Your task to perform on an android device: Open CNN.com Image 0: 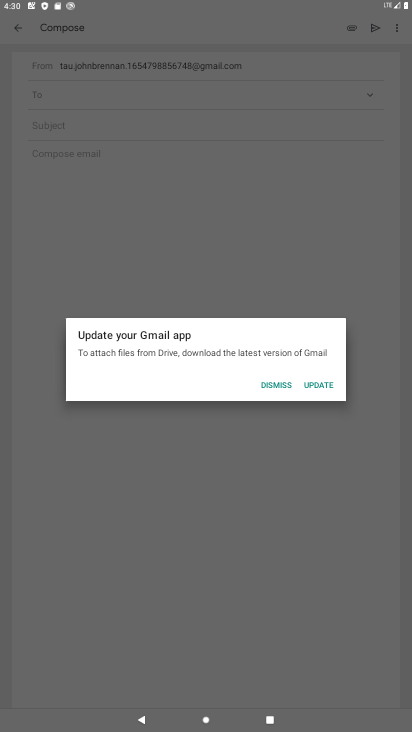
Step 0: click (18, 42)
Your task to perform on an android device: Open CNN.com Image 1: 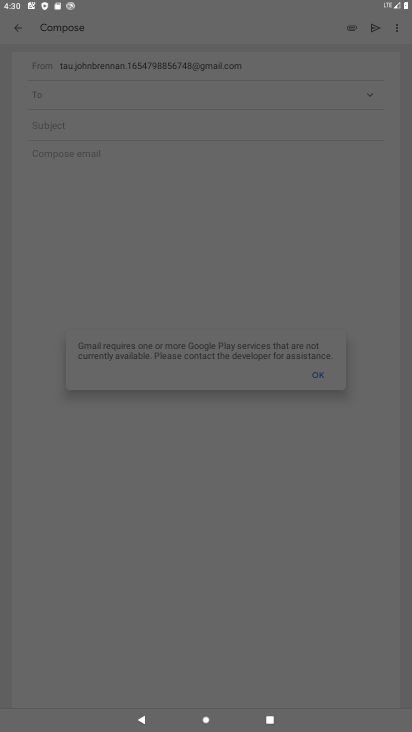
Step 1: click (19, 30)
Your task to perform on an android device: Open CNN.com Image 2: 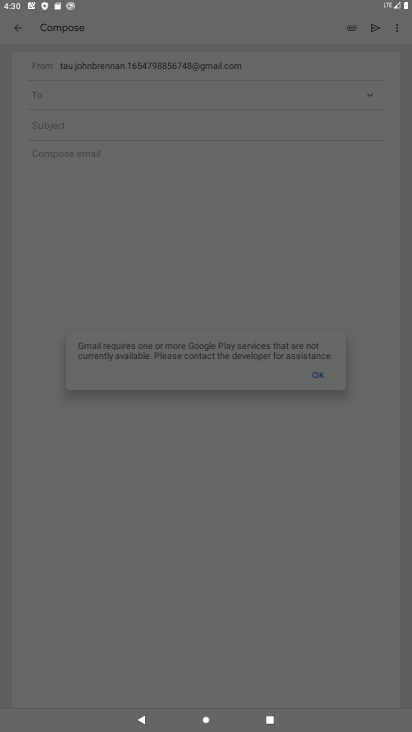
Step 2: click (19, 30)
Your task to perform on an android device: Open CNN.com Image 3: 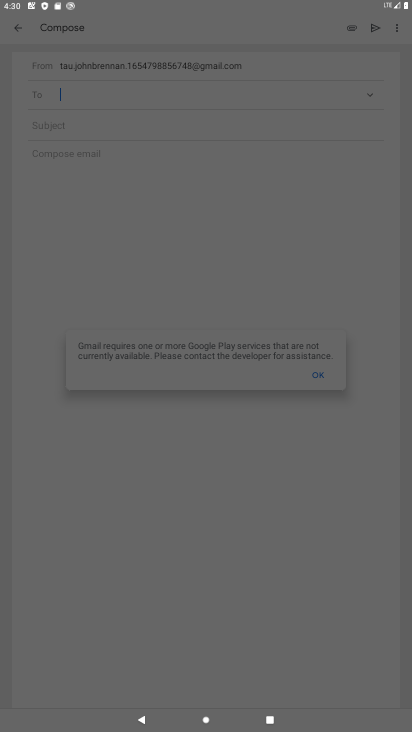
Step 3: press back button
Your task to perform on an android device: Open CNN.com Image 4: 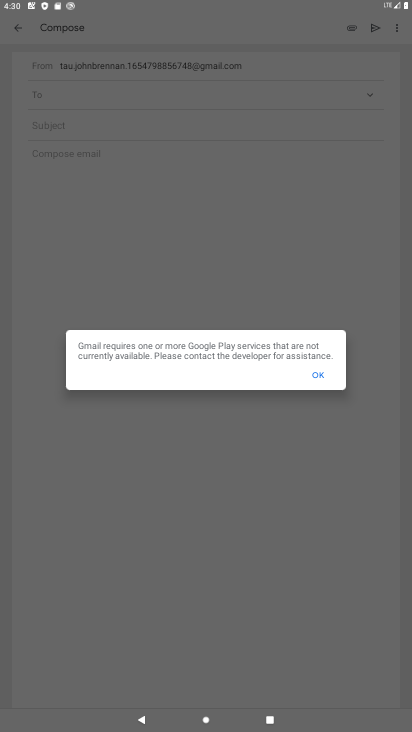
Step 4: click (13, 31)
Your task to perform on an android device: Open CNN.com Image 5: 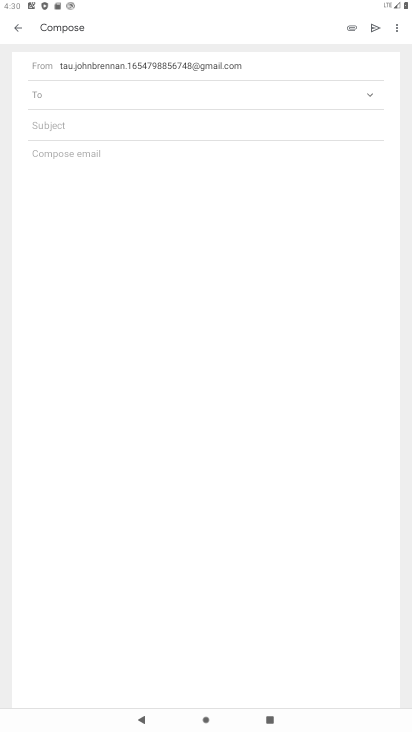
Step 5: click (320, 371)
Your task to perform on an android device: Open CNN.com Image 6: 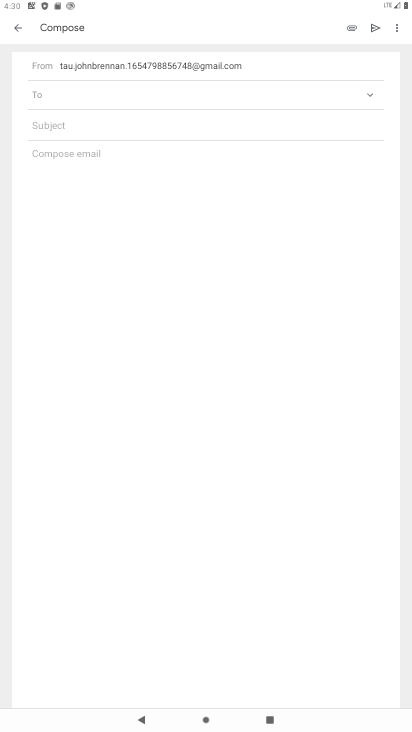
Step 6: click (320, 371)
Your task to perform on an android device: Open CNN.com Image 7: 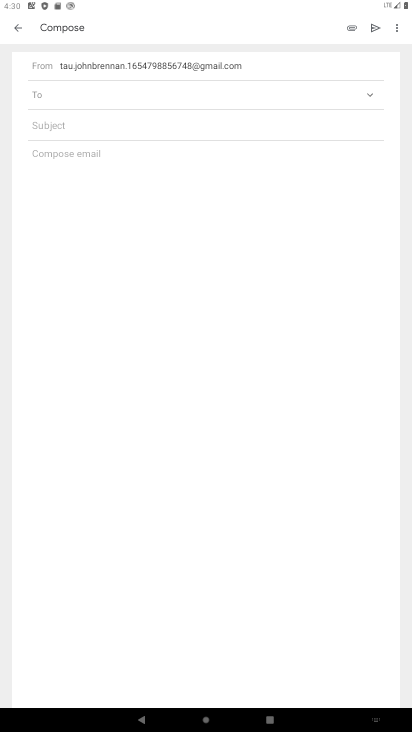
Step 7: click (18, 21)
Your task to perform on an android device: Open CNN.com Image 8: 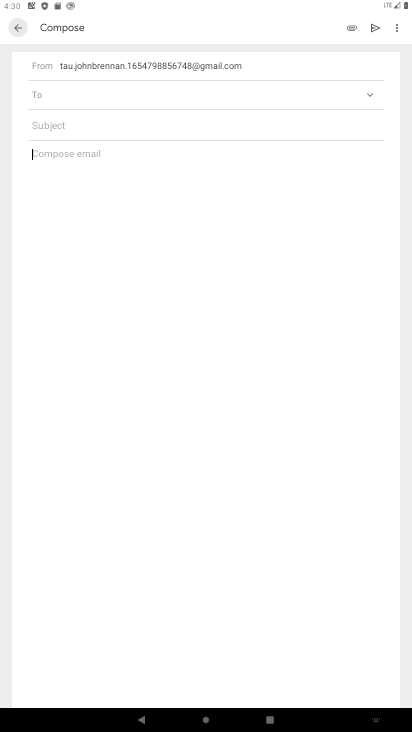
Step 8: click (19, 20)
Your task to perform on an android device: Open CNN.com Image 9: 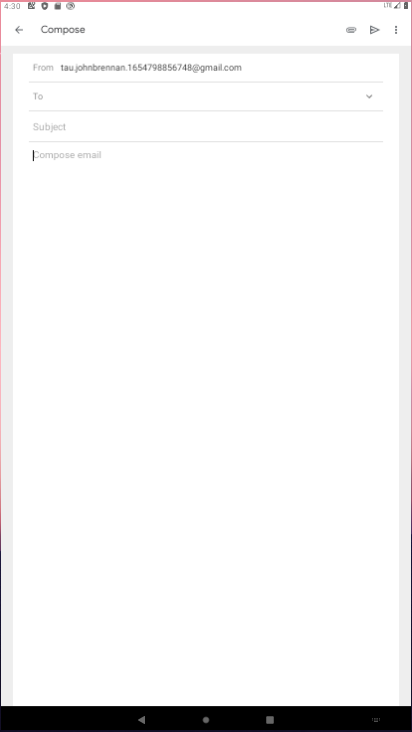
Step 9: click (18, 21)
Your task to perform on an android device: Open CNN.com Image 10: 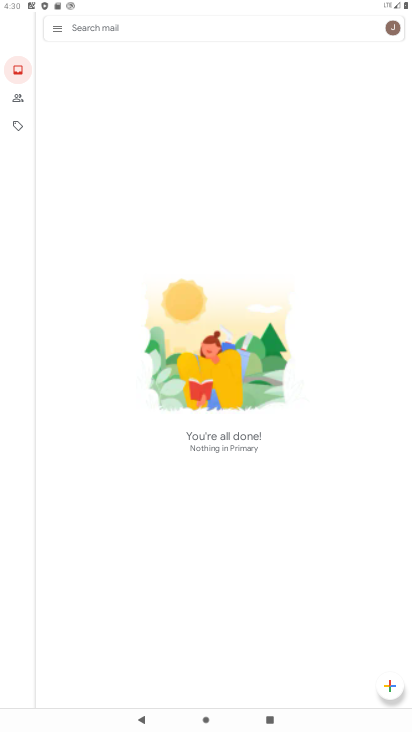
Step 10: click (54, 34)
Your task to perform on an android device: Open CNN.com Image 11: 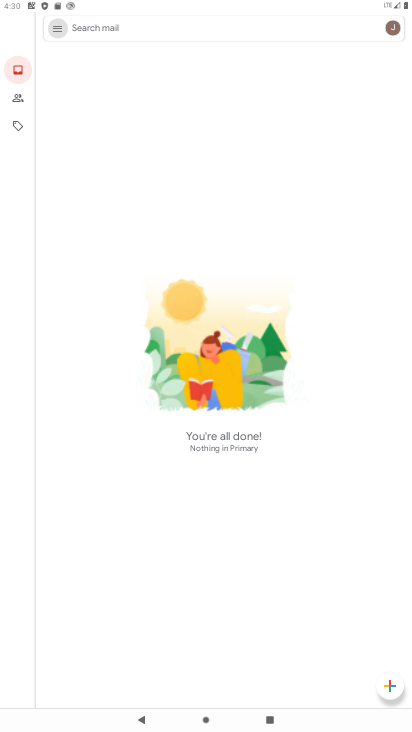
Step 11: click (54, 33)
Your task to perform on an android device: Open CNN.com Image 12: 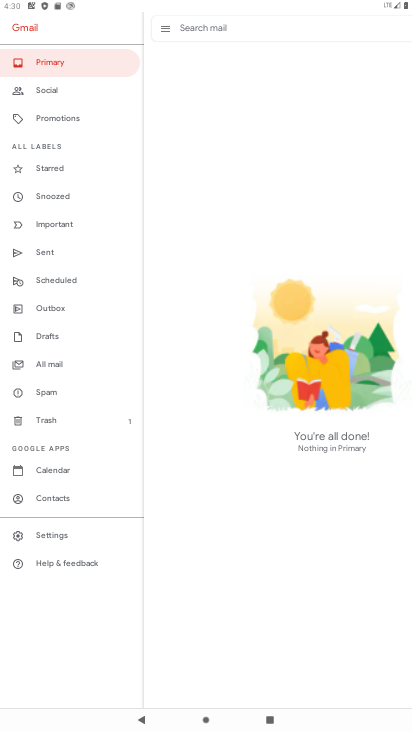
Step 12: click (55, 32)
Your task to perform on an android device: Open CNN.com Image 13: 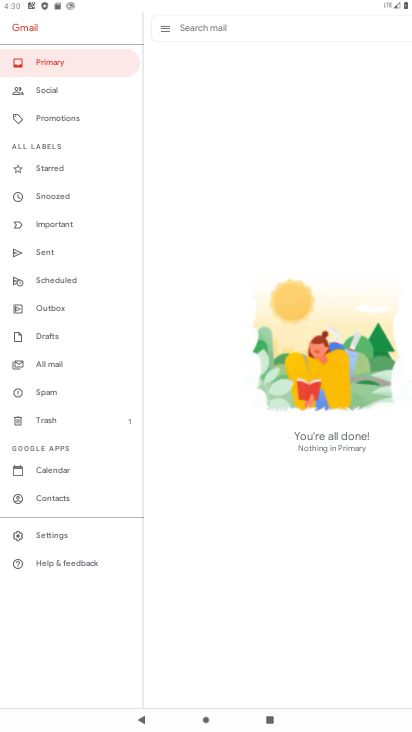
Step 13: press back button
Your task to perform on an android device: Open CNN.com Image 14: 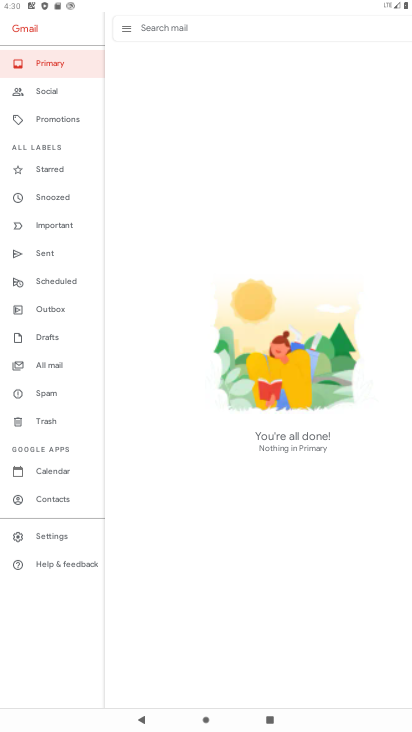
Step 14: press back button
Your task to perform on an android device: Open CNN.com Image 15: 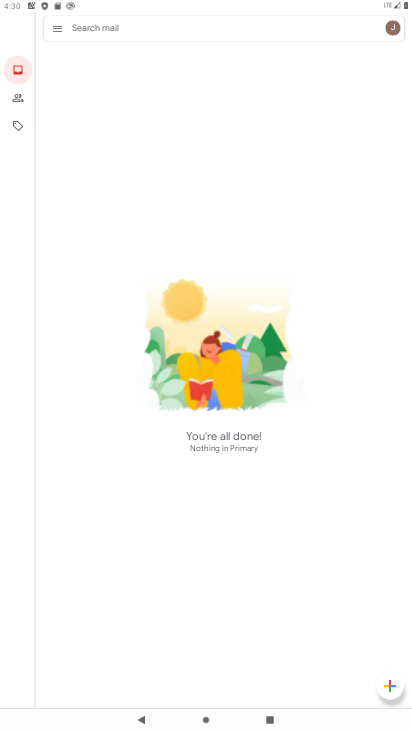
Step 15: press back button
Your task to perform on an android device: Open CNN.com Image 16: 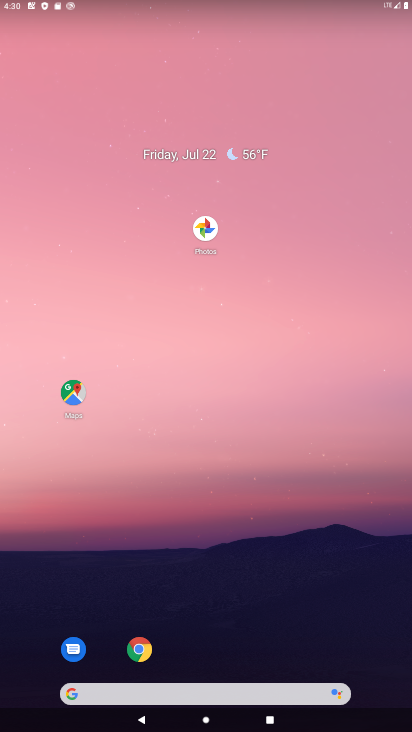
Step 16: drag from (150, 239) to (122, 12)
Your task to perform on an android device: Open CNN.com Image 17: 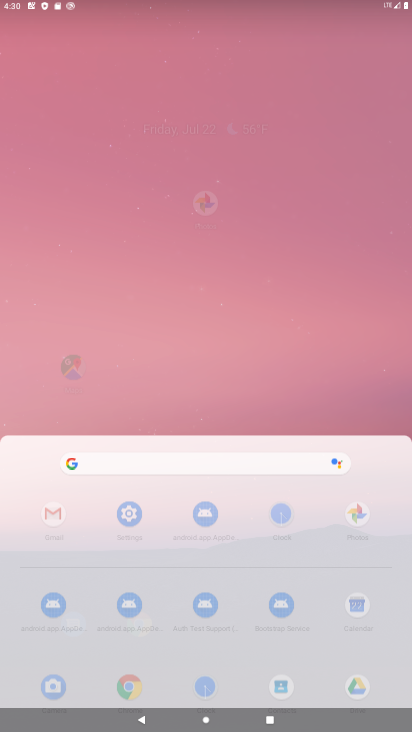
Step 17: click (164, 16)
Your task to perform on an android device: Open CNN.com Image 18: 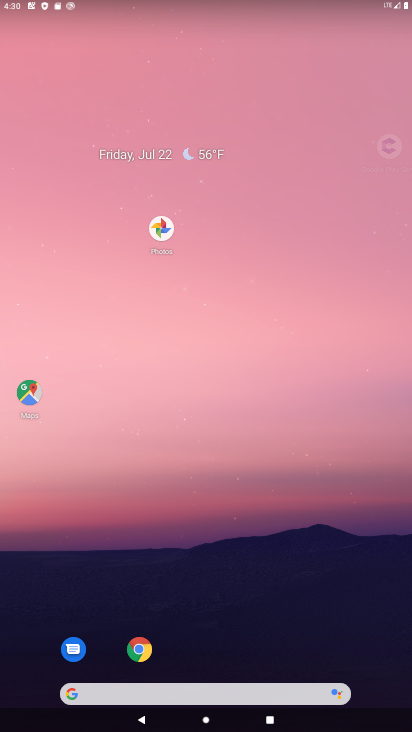
Step 18: drag from (224, 429) to (216, 5)
Your task to perform on an android device: Open CNN.com Image 19: 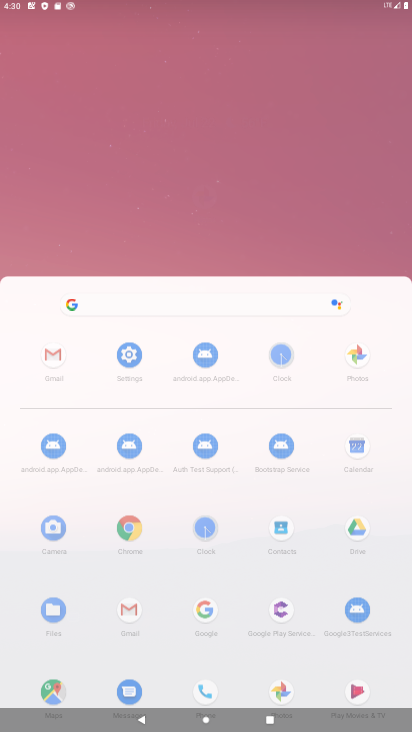
Step 19: drag from (216, 347) to (148, 166)
Your task to perform on an android device: Open CNN.com Image 20: 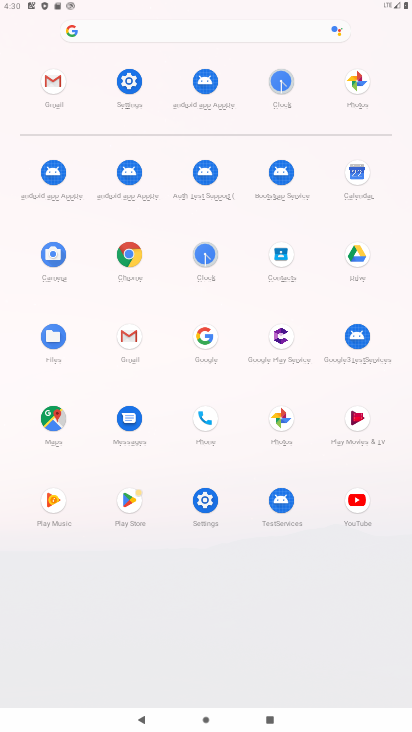
Step 20: click (127, 249)
Your task to perform on an android device: Open CNN.com Image 21: 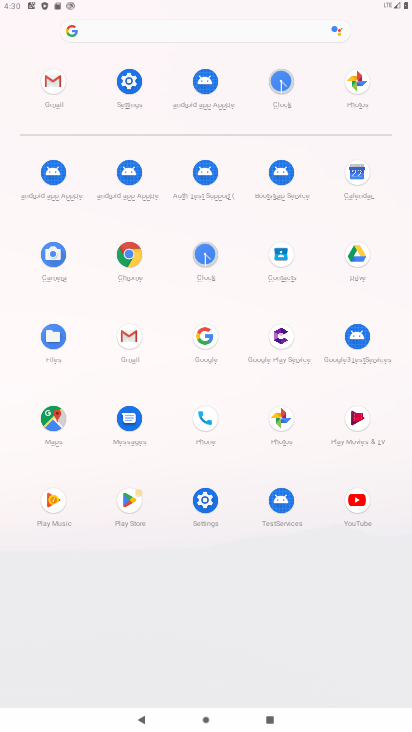
Step 21: click (128, 250)
Your task to perform on an android device: Open CNN.com Image 22: 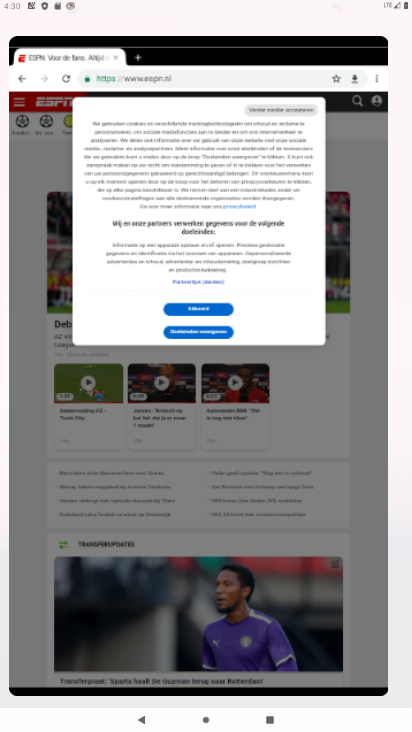
Step 22: click (137, 250)
Your task to perform on an android device: Open CNN.com Image 23: 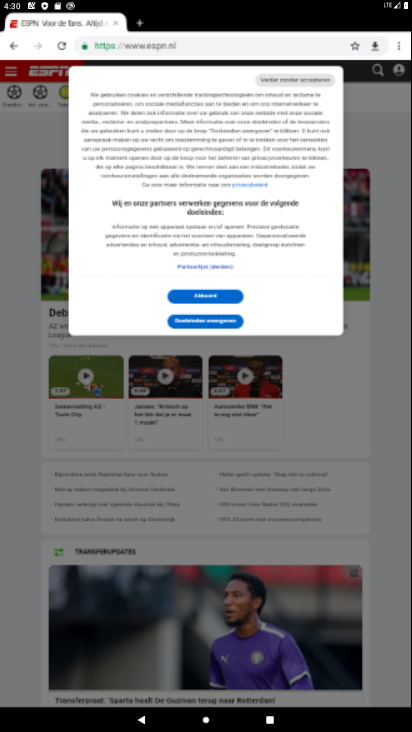
Step 23: click (137, 250)
Your task to perform on an android device: Open CNN.com Image 24: 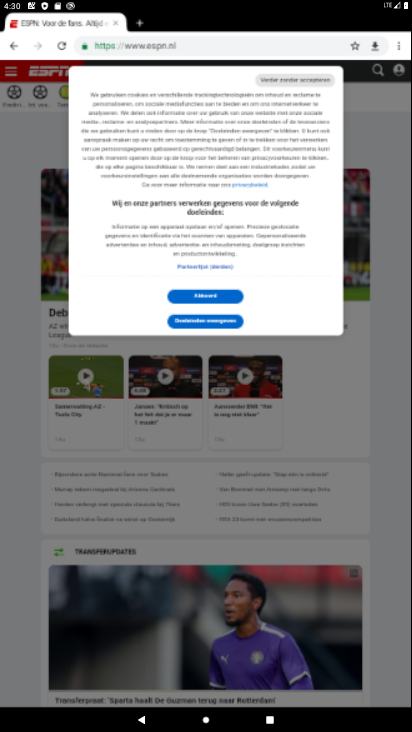
Step 24: click (135, 253)
Your task to perform on an android device: Open CNN.com Image 25: 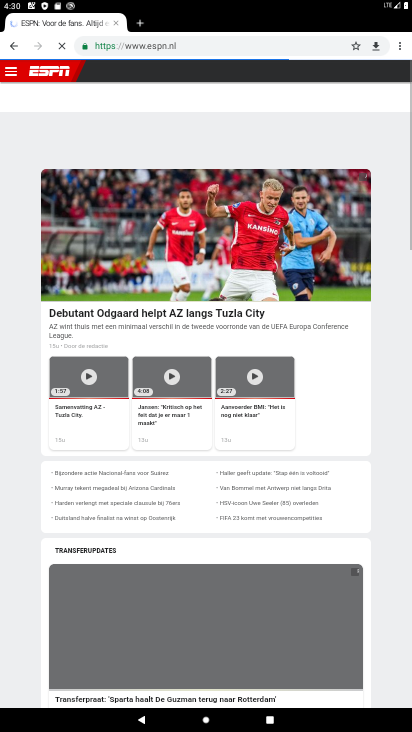
Step 25: click (393, 49)
Your task to perform on an android device: Open CNN.com Image 26: 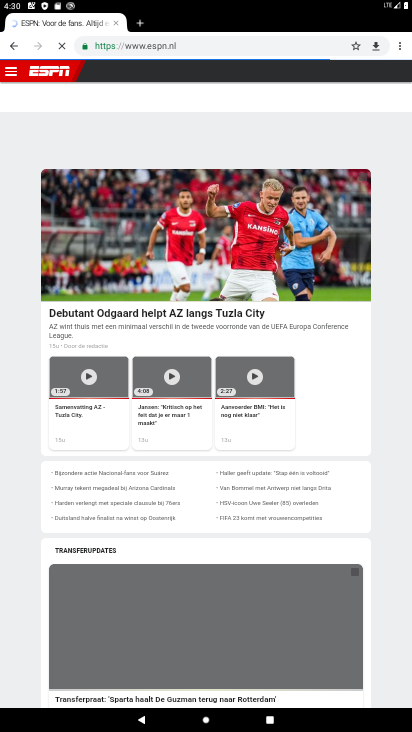
Step 26: click (308, 45)
Your task to perform on an android device: Open CNN.com Image 27: 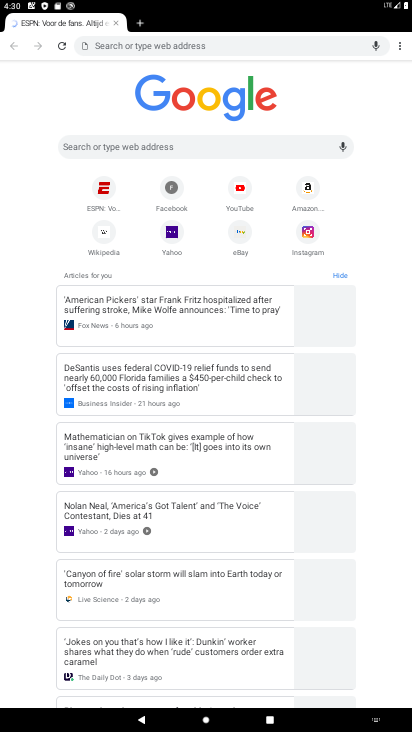
Step 27: click (308, 44)
Your task to perform on an android device: Open CNN.com Image 28: 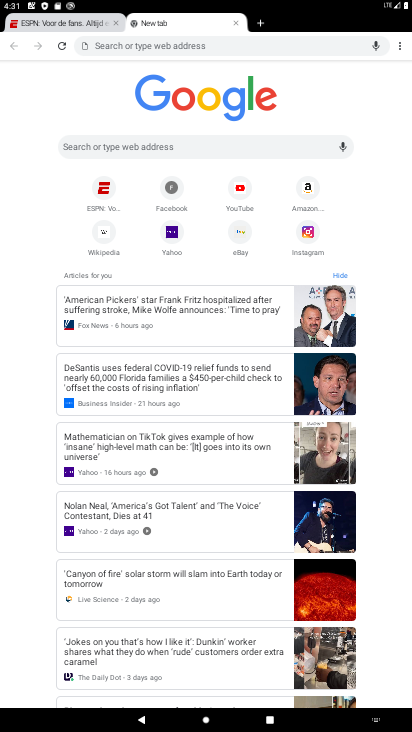
Step 28: type "CNN.com"
Your task to perform on an android device: Open CNN.com Image 29: 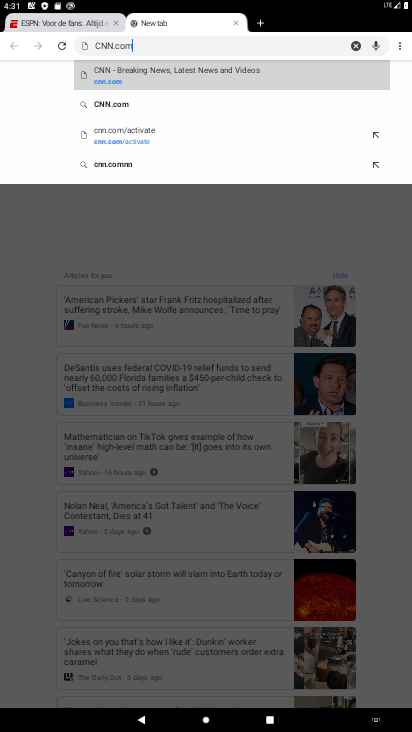
Step 29: click (112, 52)
Your task to perform on an android device: Open CNN.com Image 30: 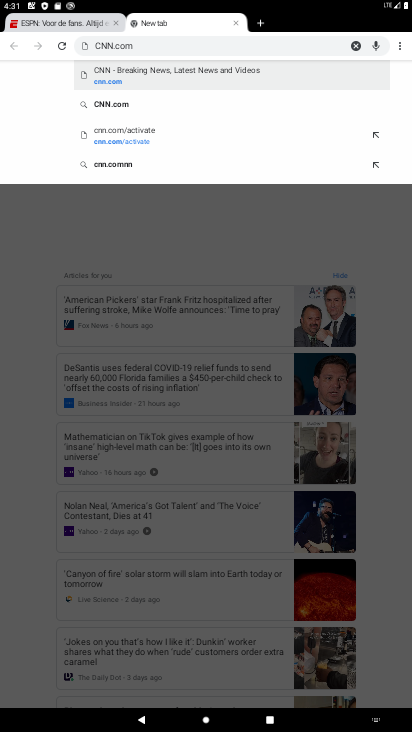
Step 30: click (113, 50)
Your task to perform on an android device: Open CNN.com Image 31: 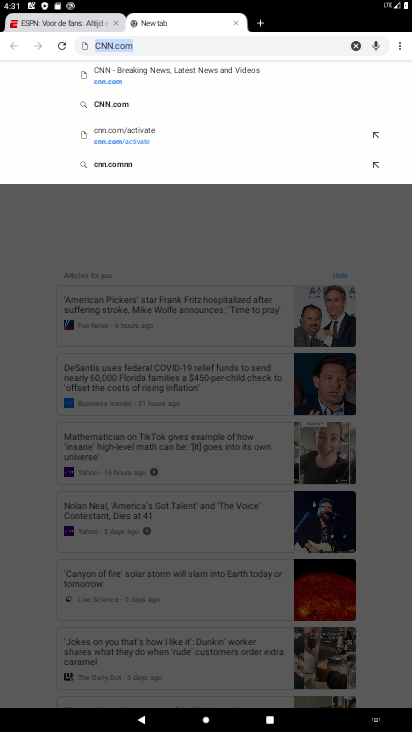
Step 31: click (113, 50)
Your task to perform on an android device: Open CNN.com Image 32: 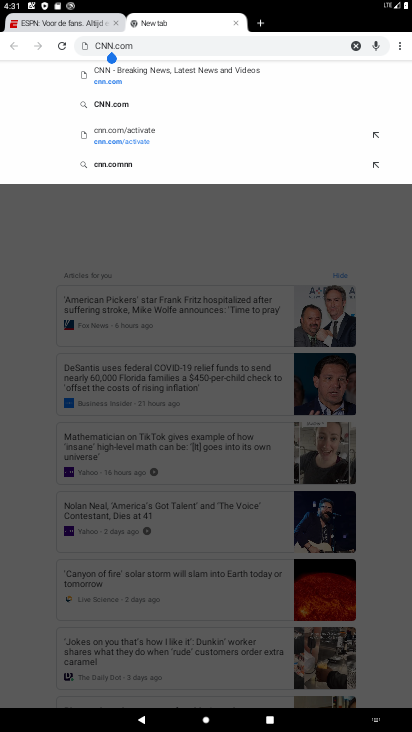
Step 32: click (133, 64)
Your task to perform on an android device: Open CNN.com Image 33: 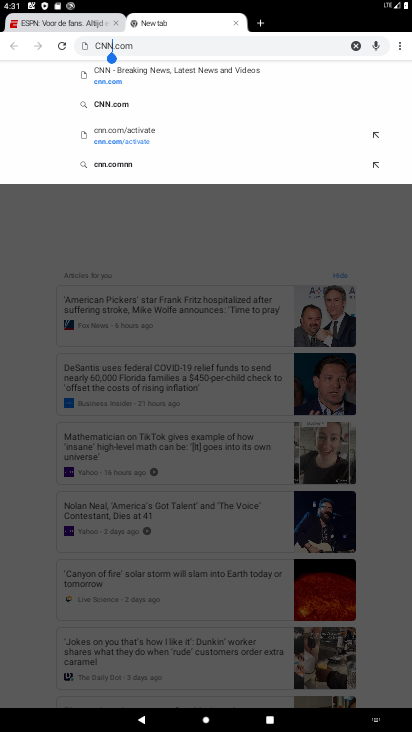
Step 33: click (133, 64)
Your task to perform on an android device: Open CNN.com Image 34: 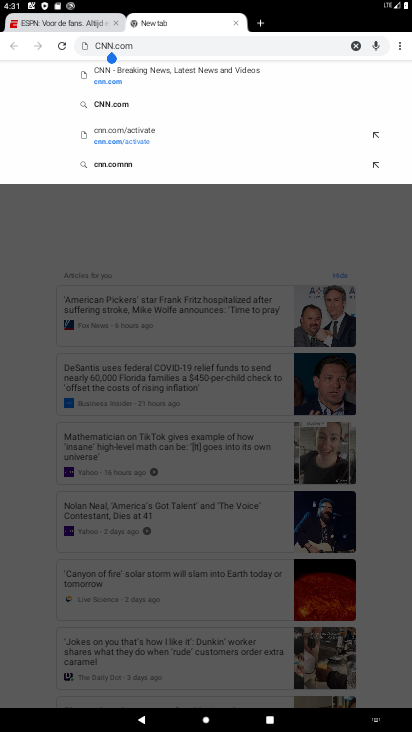
Step 34: task complete